Your task to perform on an android device: Go to ESPN.com Image 0: 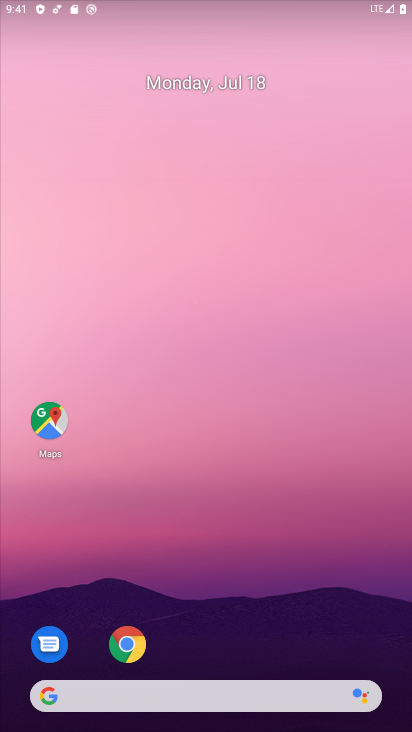
Step 0: press home button
Your task to perform on an android device: Go to ESPN.com Image 1: 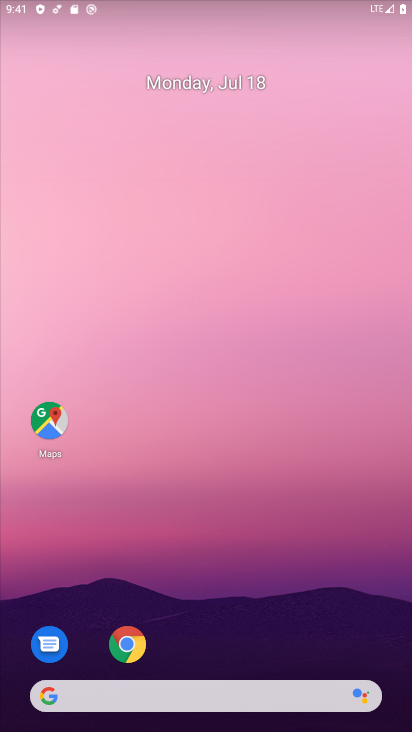
Step 1: click (324, 47)
Your task to perform on an android device: Go to ESPN.com Image 2: 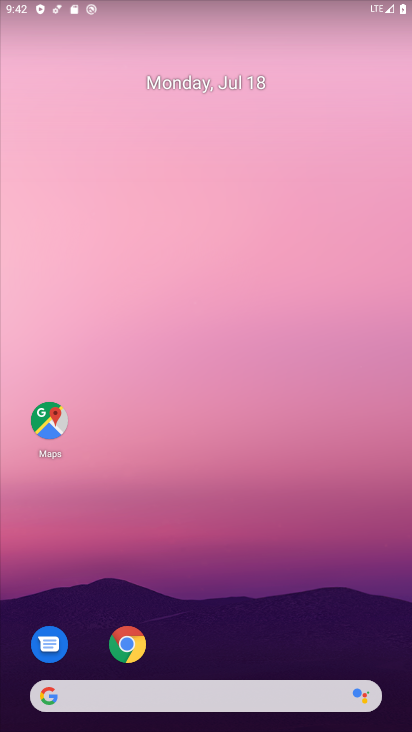
Step 2: drag from (300, 620) to (330, 65)
Your task to perform on an android device: Go to ESPN.com Image 3: 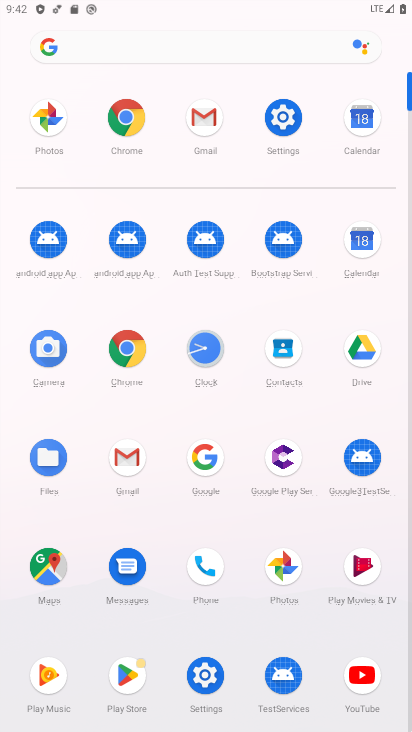
Step 3: click (136, 353)
Your task to perform on an android device: Go to ESPN.com Image 4: 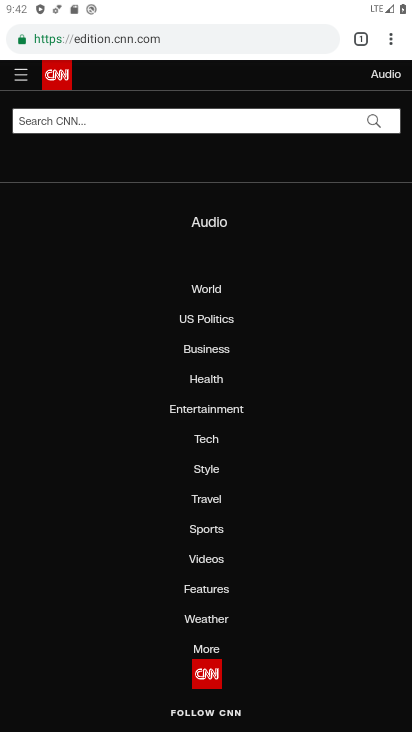
Step 4: click (201, 41)
Your task to perform on an android device: Go to ESPN.com Image 5: 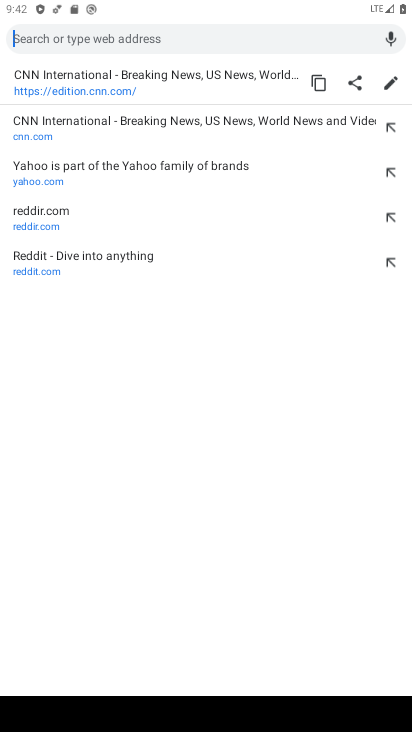
Step 5: type "espn.com"
Your task to perform on an android device: Go to ESPN.com Image 6: 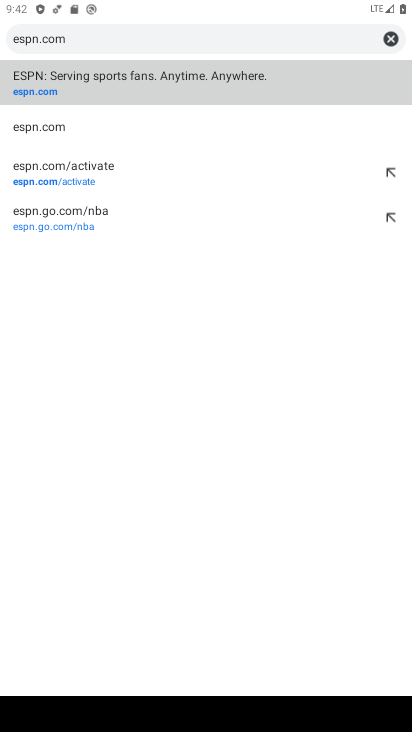
Step 6: click (110, 85)
Your task to perform on an android device: Go to ESPN.com Image 7: 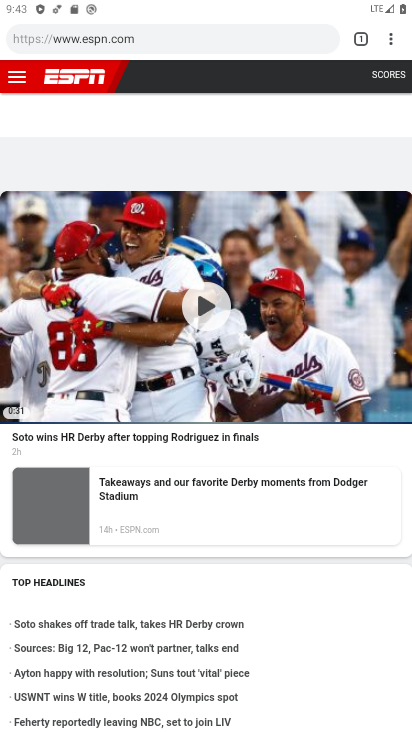
Step 7: task complete